Your task to perform on an android device: allow cookies in the chrome app Image 0: 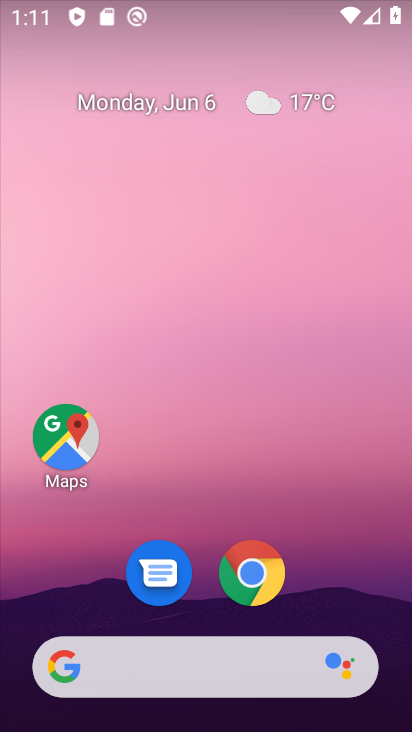
Step 0: drag from (388, 619) to (369, 218)
Your task to perform on an android device: allow cookies in the chrome app Image 1: 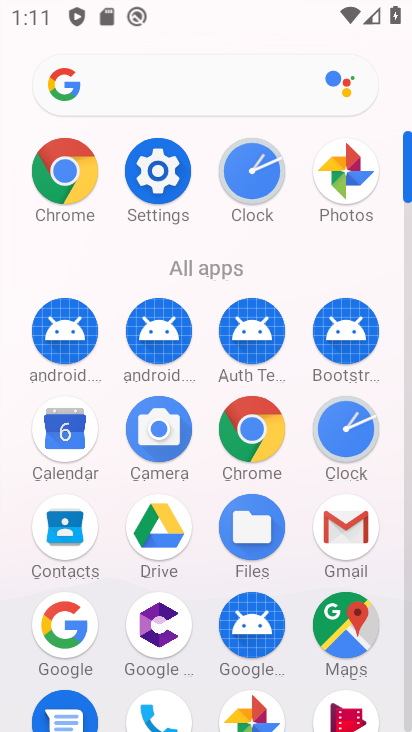
Step 1: click (270, 431)
Your task to perform on an android device: allow cookies in the chrome app Image 2: 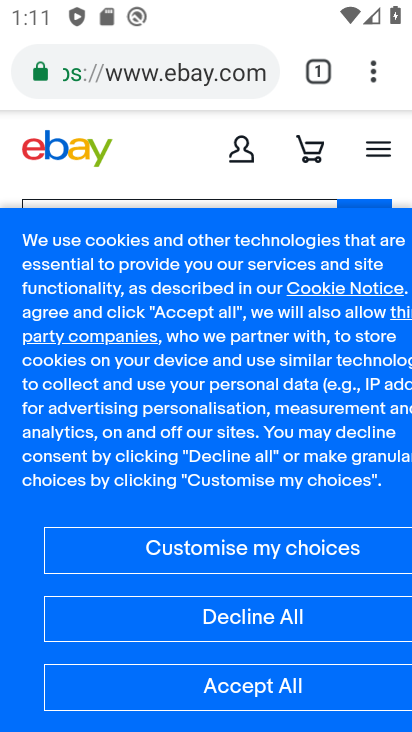
Step 2: click (375, 81)
Your task to perform on an android device: allow cookies in the chrome app Image 3: 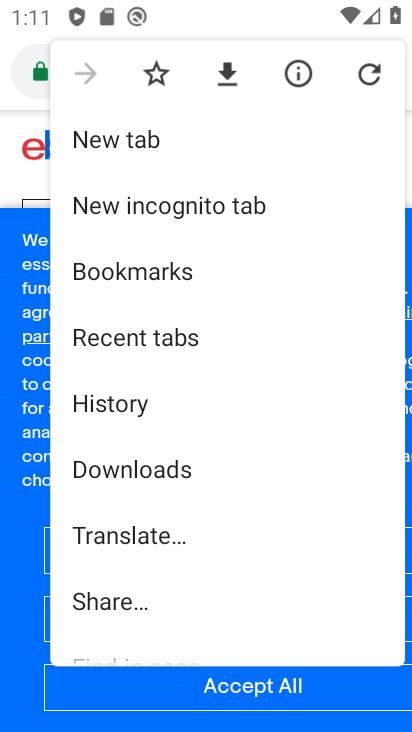
Step 3: drag from (295, 540) to (295, 440)
Your task to perform on an android device: allow cookies in the chrome app Image 4: 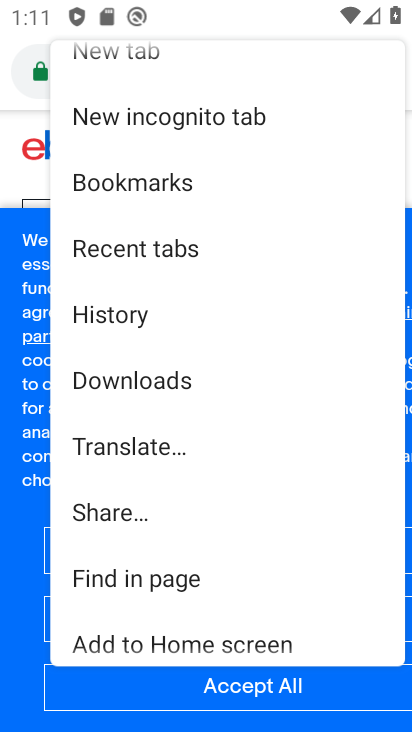
Step 4: drag from (304, 506) to (322, 353)
Your task to perform on an android device: allow cookies in the chrome app Image 5: 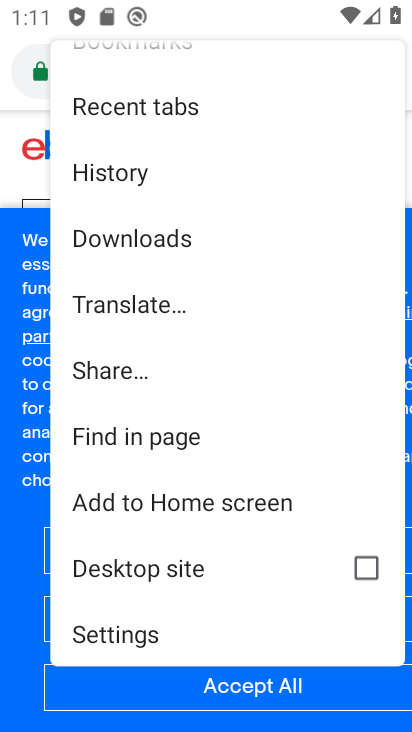
Step 5: drag from (298, 540) to (312, 423)
Your task to perform on an android device: allow cookies in the chrome app Image 6: 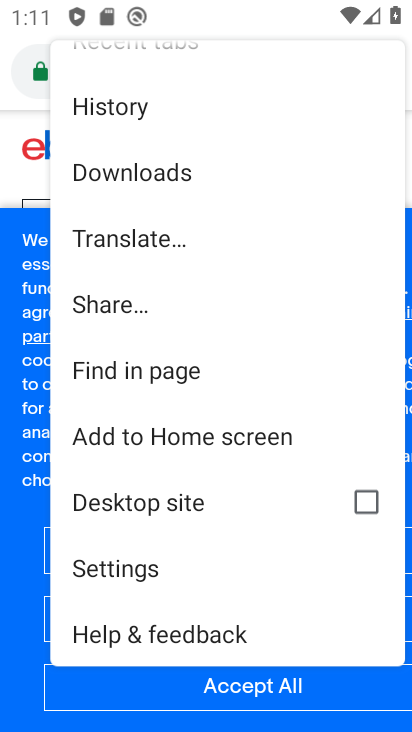
Step 6: click (202, 569)
Your task to perform on an android device: allow cookies in the chrome app Image 7: 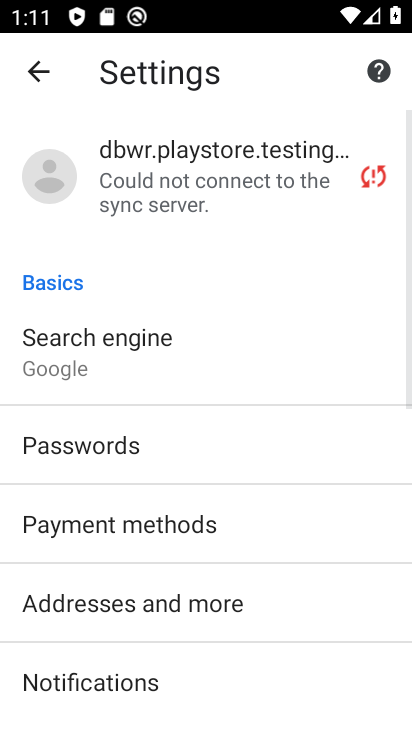
Step 7: drag from (304, 505) to (320, 432)
Your task to perform on an android device: allow cookies in the chrome app Image 8: 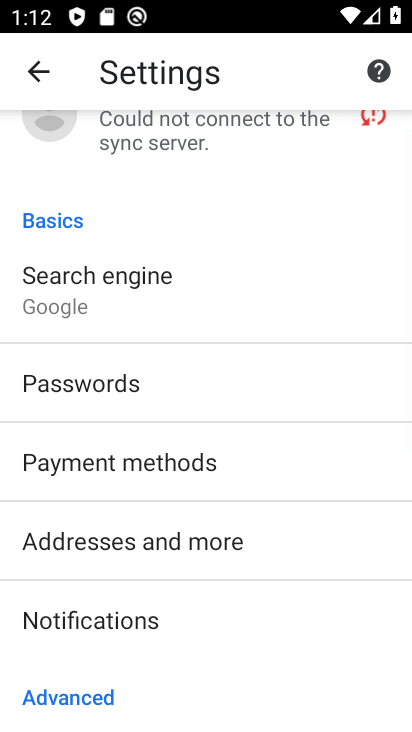
Step 8: drag from (314, 516) to (326, 425)
Your task to perform on an android device: allow cookies in the chrome app Image 9: 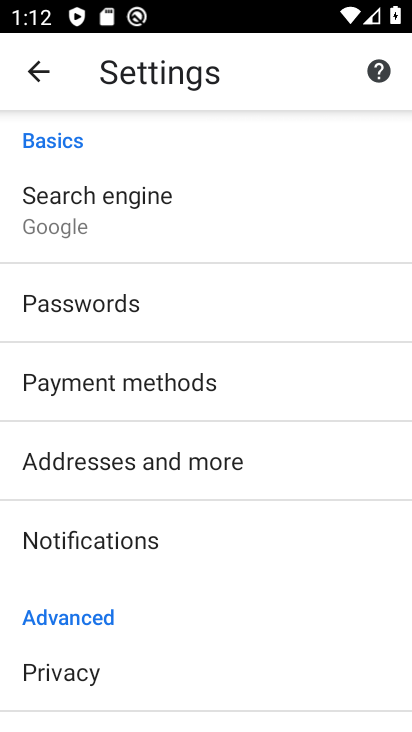
Step 9: drag from (311, 539) to (313, 463)
Your task to perform on an android device: allow cookies in the chrome app Image 10: 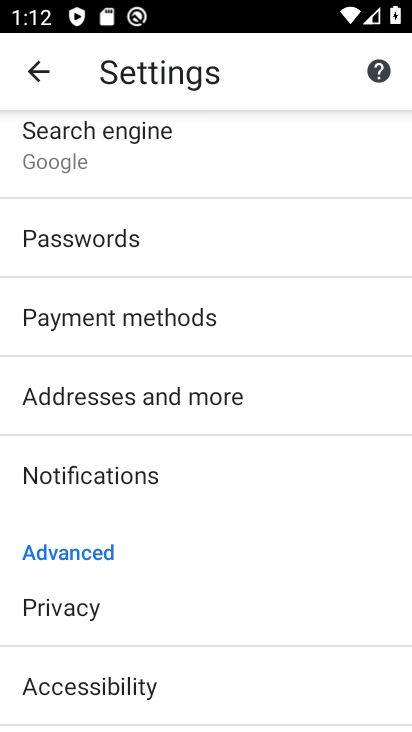
Step 10: drag from (305, 533) to (311, 453)
Your task to perform on an android device: allow cookies in the chrome app Image 11: 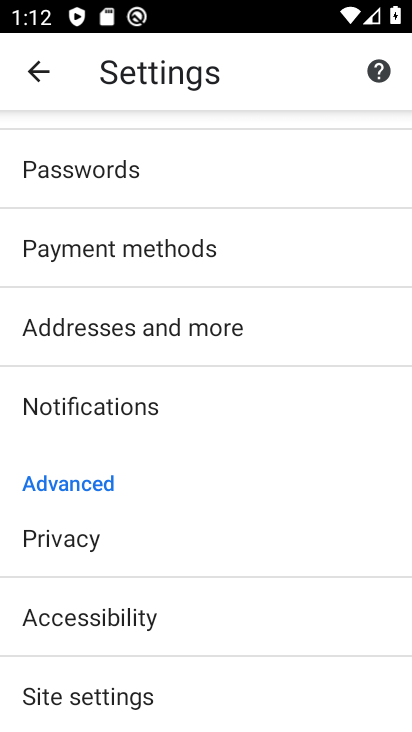
Step 11: drag from (305, 537) to (309, 440)
Your task to perform on an android device: allow cookies in the chrome app Image 12: 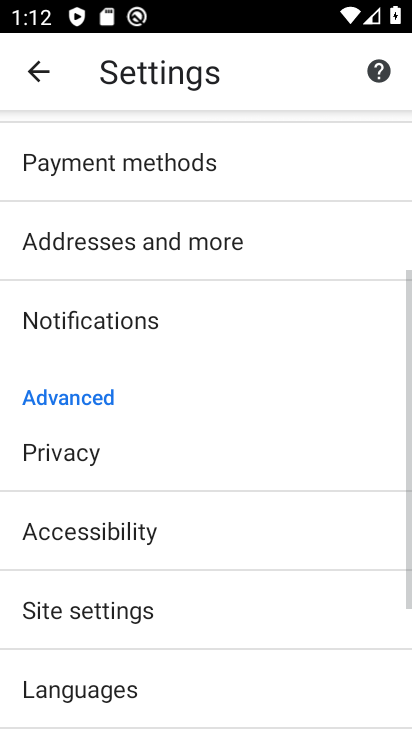
Step 12: drag from (311, 558) to (317, 471)
Your task to perform on an android device: allow cookies in the chrome app Image 13: 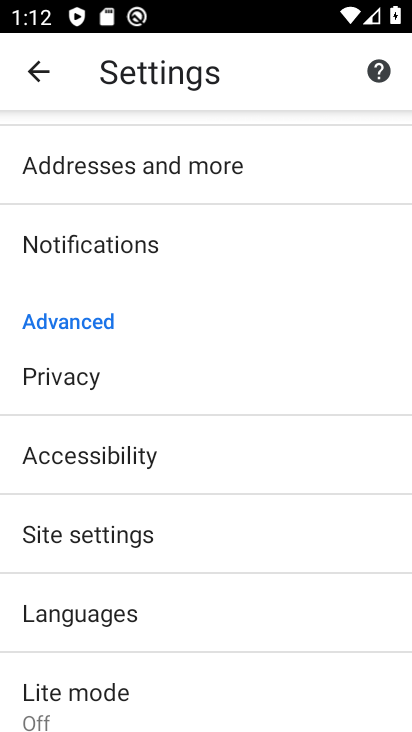
Step 13: click (271, 539)
Your task to perform on an android device: allow cookies in the chrome app Image 14: 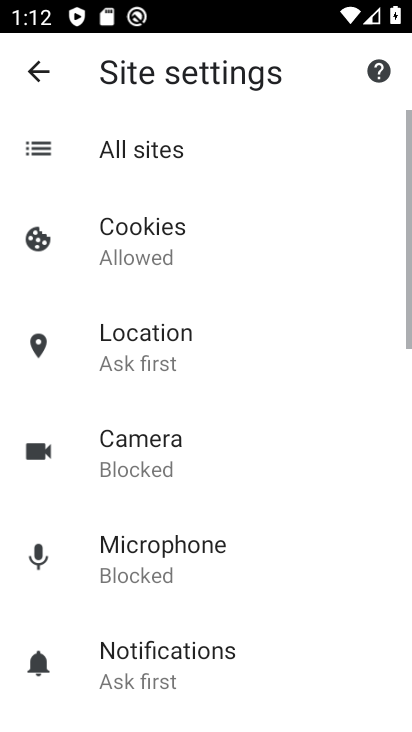
Step 14: drag from (304, 555) to (308, 497)
Your task to perform on an android device: allow cookies in the chrome app Image 15: 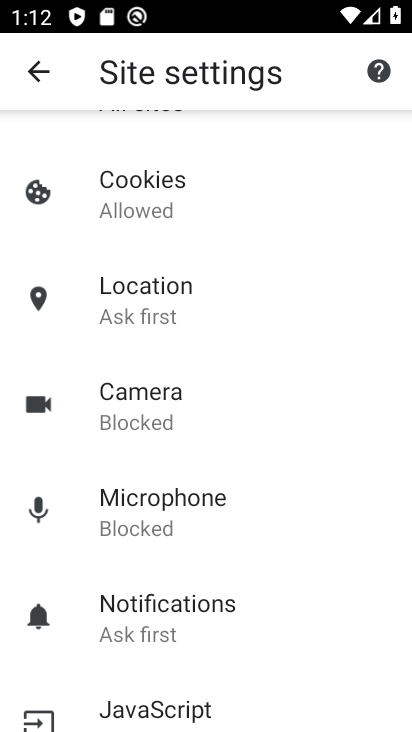
Step 15: drag from (309, 507) to (315, 420)
Your task to perform on an android device: allow cookies in the chrome app Image 16: 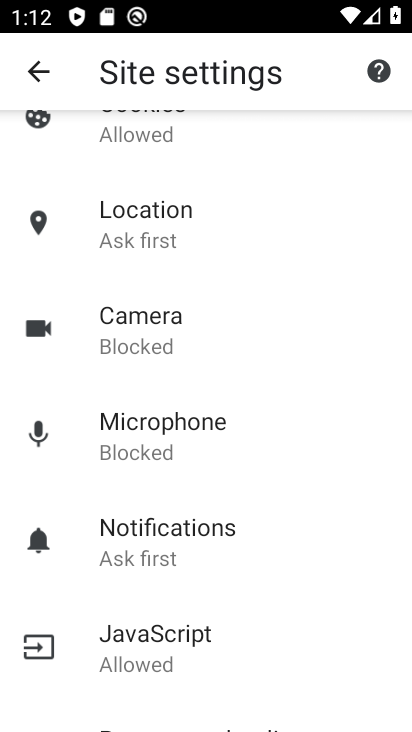
Step 16: drag from (330, 335) to (326, 444)
Your task to perform on an android device: allow cookies in the chrome app Image 17: 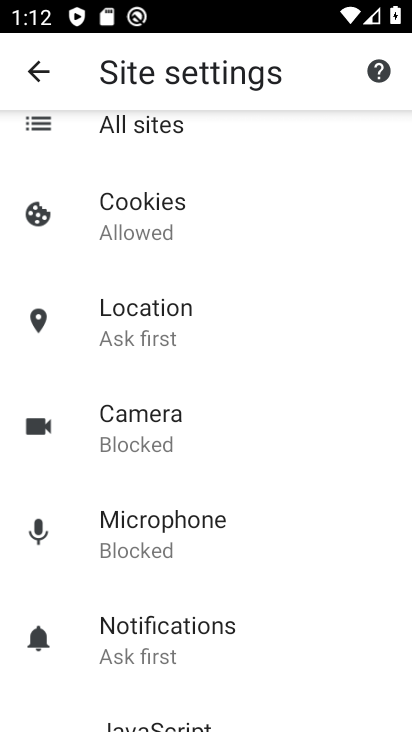
Step 17: click (220, 236)
Your task to perform on an android device: allow cookies in the chrome app Image 18: 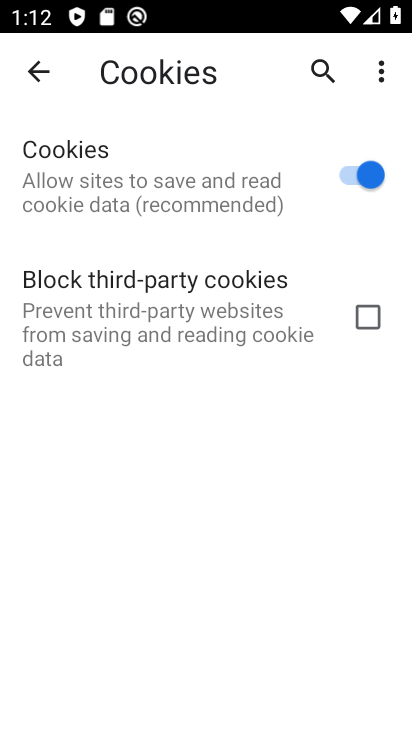
Step 18: task complete